Your task to perform on an android device: toggle pop-ups in chrome Image 0: 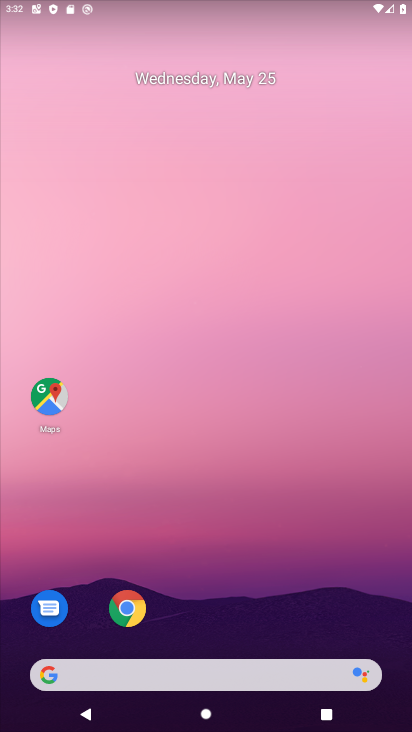
Step 0: click (115, 613)
Your task to perform on an android device: toggle pop-ups in chrome Image 1: 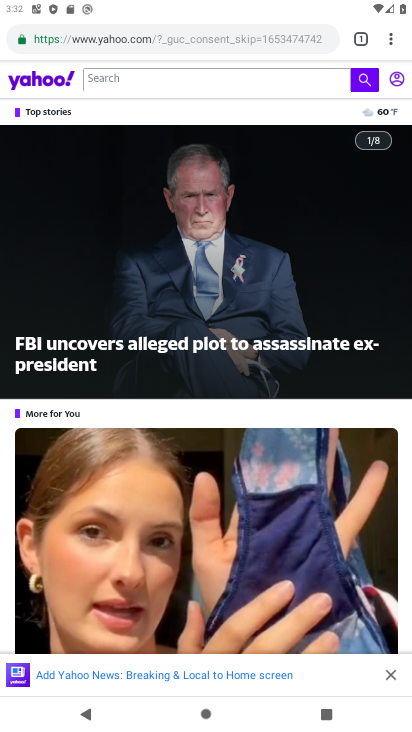
Step 1: click (399, 32)
Your task to perform on an android device: toggle pop-ups in chrome Image 2: 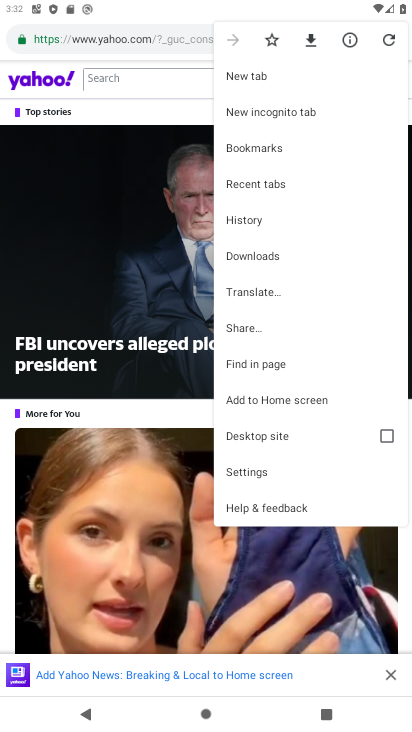
Step 2: click (234, 482)
Your task to perform on an android device: toggle pop-ups in chrome Image 3: 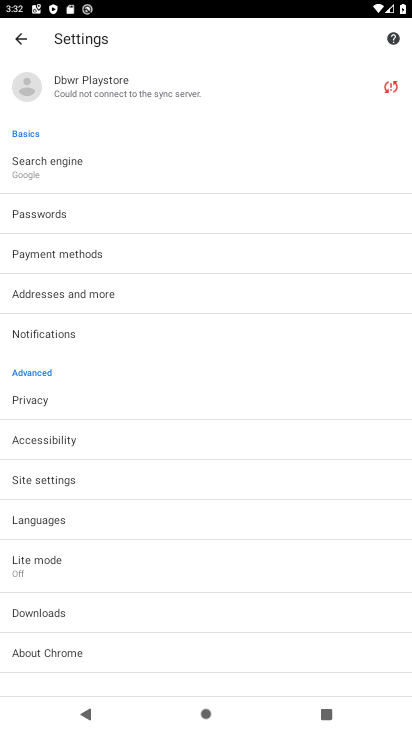
Step 3: click (234, 482)
Your task to perform on an android device: toggle pop-ups in chrome Image 4: 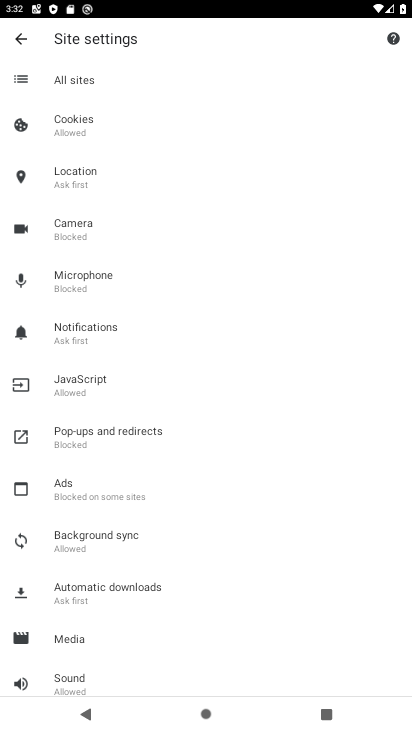
Step 4: click (116, 443)
Your task to perform on an android device: toggle pop-ups in chrome Image 5: 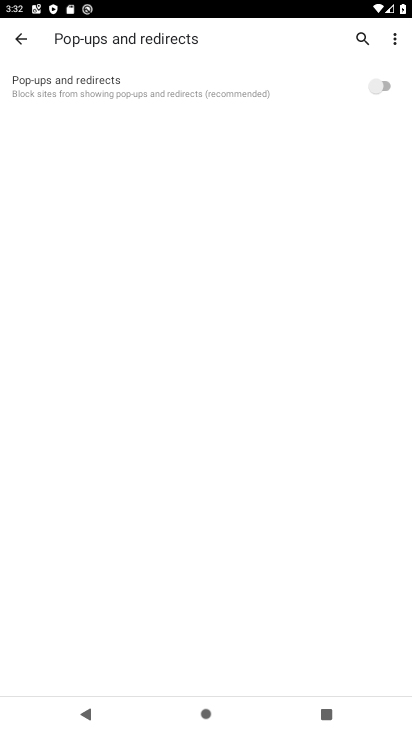
Step 5: click (395, 88)
Your task to perform on an android device: toggle pop-ups in chrome Image 6: 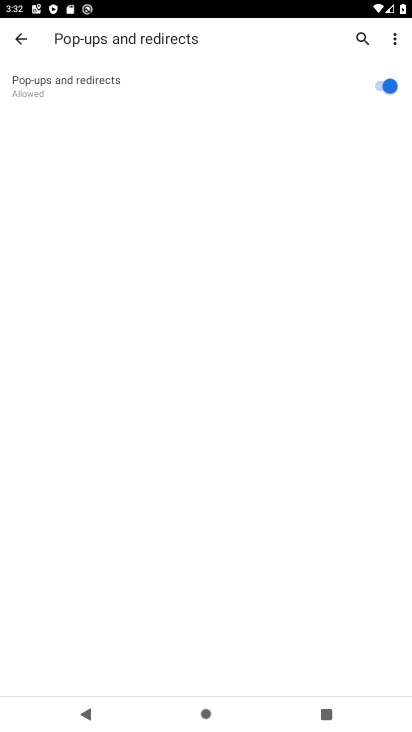
Step 6: task complete